Your task to perform on an android device: turn on priority inbox in the gmail app Image 0: 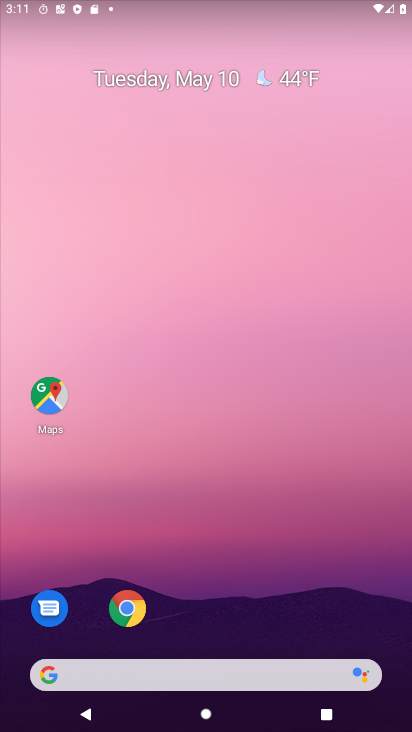
Step 0: drag from (311, 571) to (342, 0)
Your task to perform on an android device: turn on priority inbox in the gmail app Image 1: 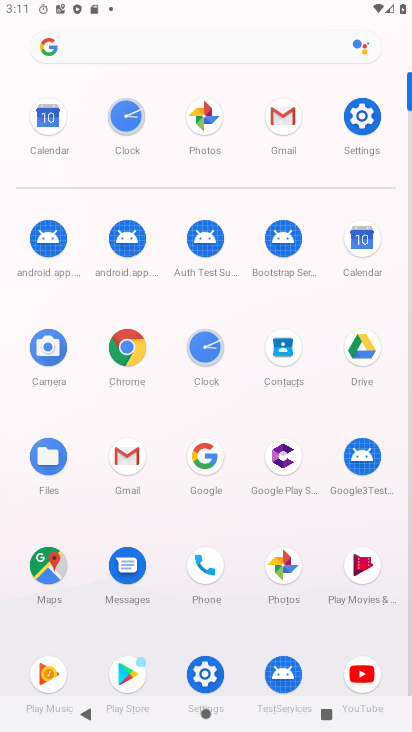
Step 1: click (280, 120)
Your task to perform on an android device: turn on priority inbox in the gmail app Image 2: 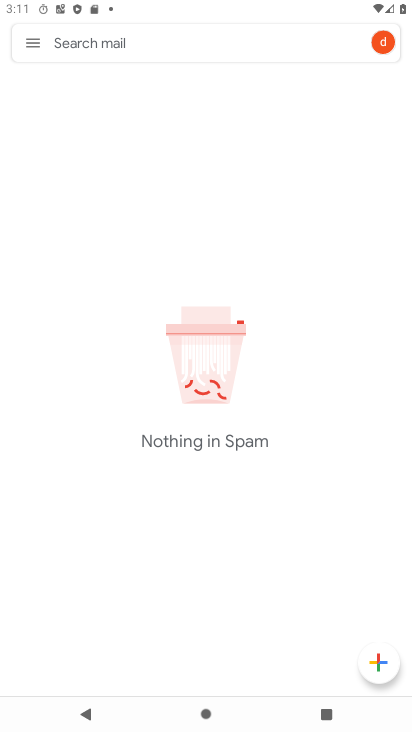
Step 2: click (35, 44)
Your task to perform on an android device: turn on priority inbox in the gmail app Image 3: 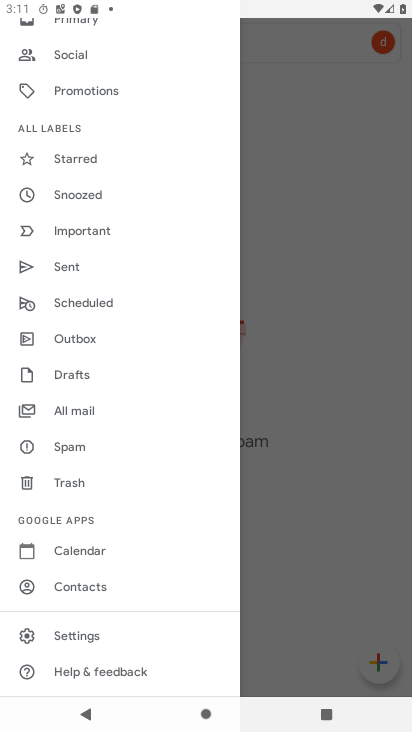
Step 3: click (71, 638)
Your task to perform on an android device: turn on priority inbox in the gmail app Image 4: 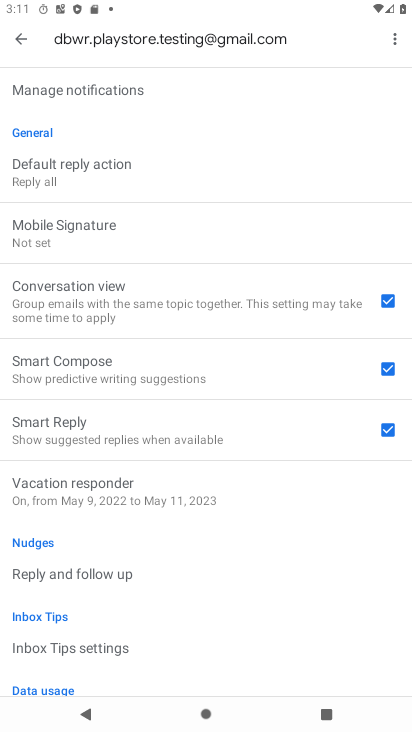
Step 4: drag from (146, 174) to (152, 710)
Your task to perform on an android device: turn on priority inbox in the gmail app Image 5: 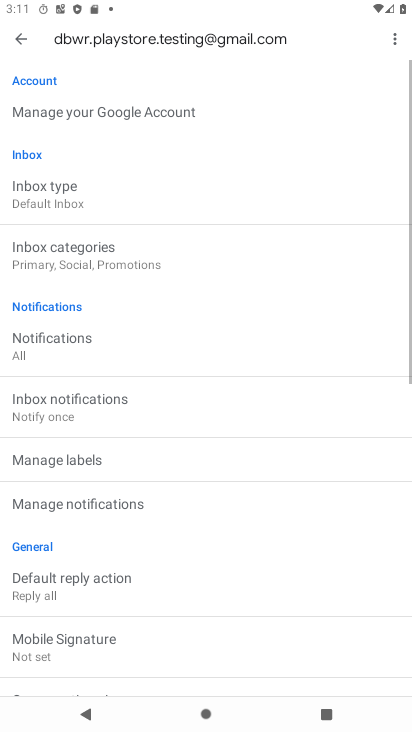
Step 5: click (53, 199)
Your task to perform on an android device: turn on priority inbox in the gmail app Image 6: 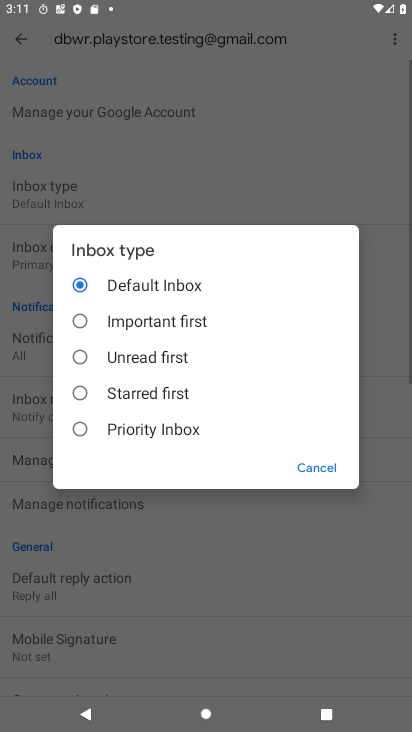
Step 6: click (127, 436)
Your task to perform on an android device: turn on priority inbox in the gmail app Image 7: 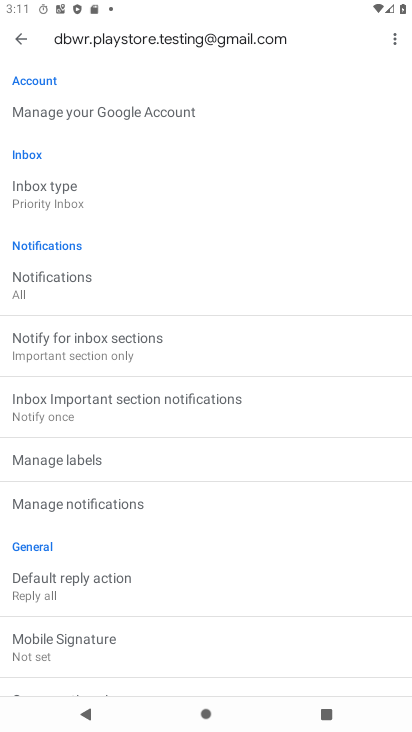
Step 7: task complete